Your task to perform on an android device: change the clock display to analog Image 0: 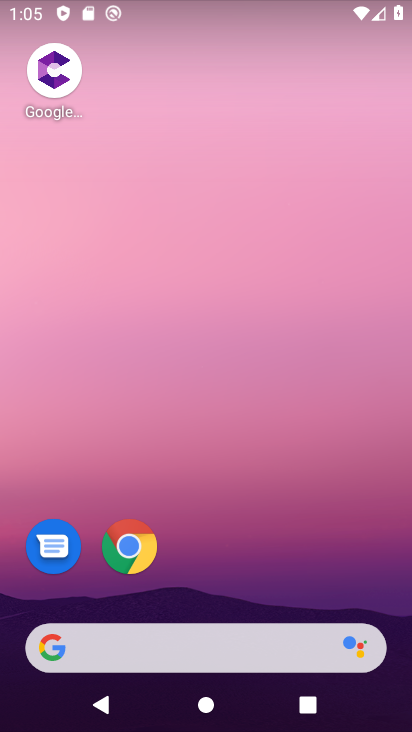
Step 0: drag from (197, 629) to (224, 139)
Your task to perform on an android device: change the clock display to analog Image 1: 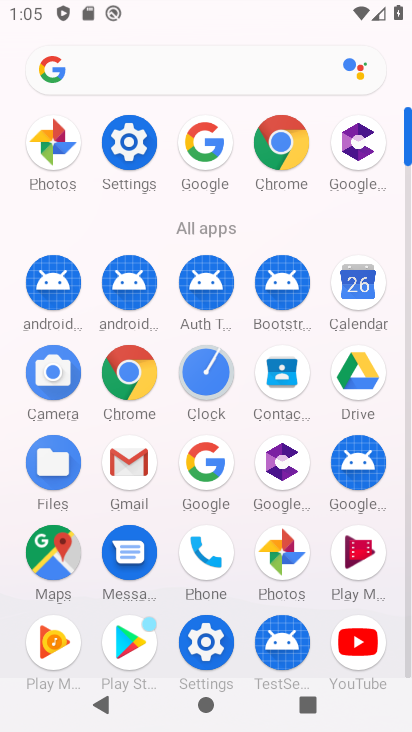
Step 1: click (223, 140)
Your task to perform on an android device: change the clock display to analog Image 2: 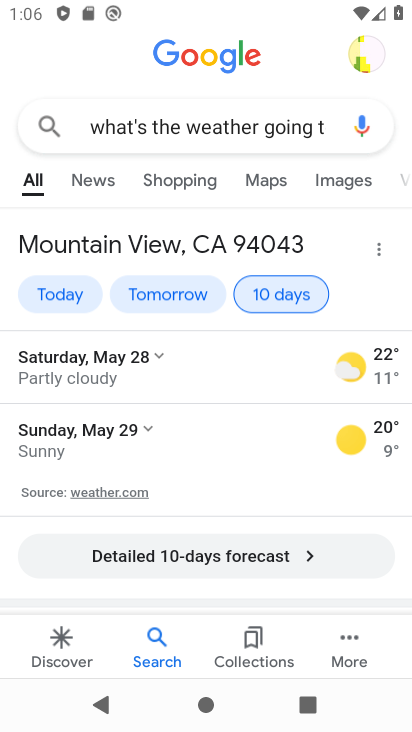
Step 2: click (207, 284)
Your task to perform on an android device: change the clock display to analog Image 3: 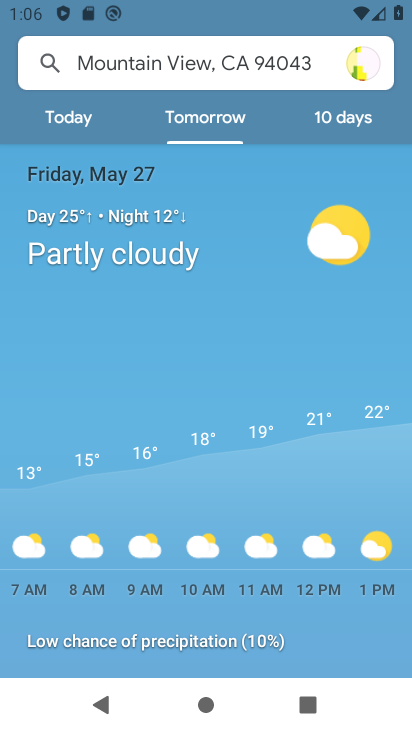
Step 3: task complete